Your task to perform on an android device: remove spam from my inbox in the gmail app Image 0: 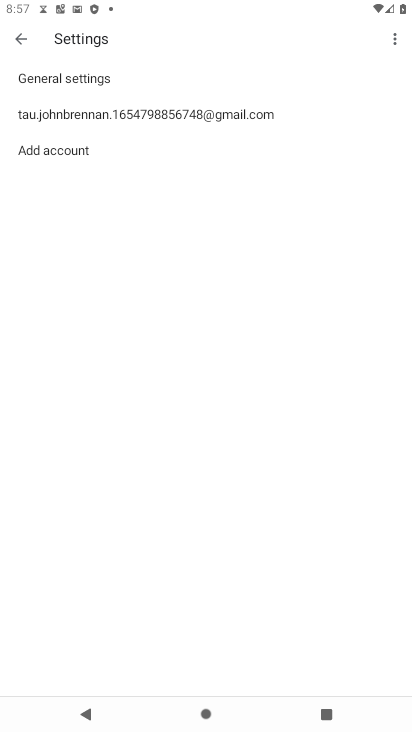
Step 0: press home button
Your task to perform on an android device: remove spam from my inbox in the gmail app Image 1: 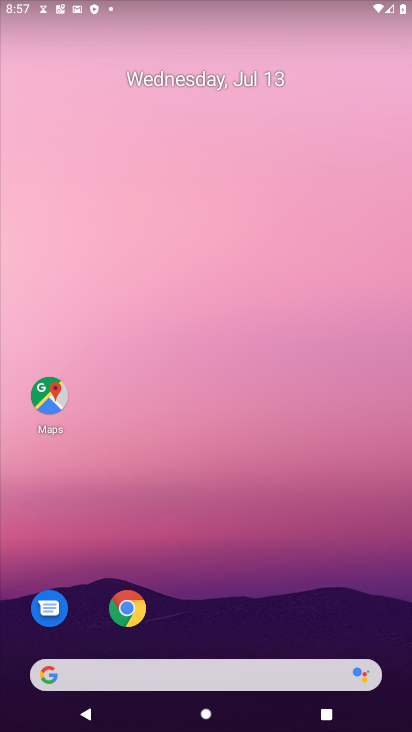
Step 1: drag from (242, 662) to (382, 21)
Your task to perform on an android device: remove spam from my inbox in the gmail app Image 2: 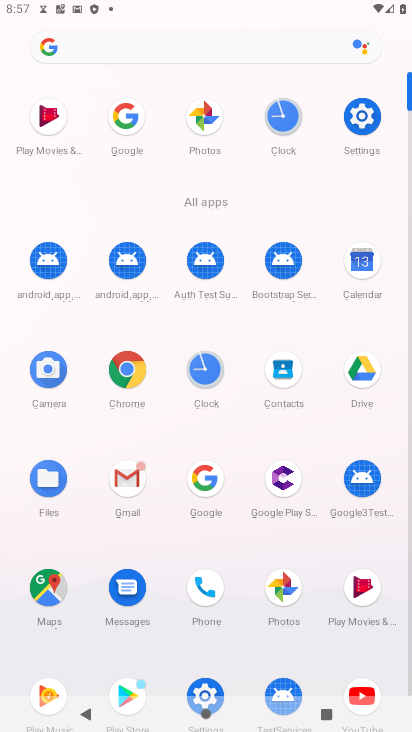
Step 2: click (129, 478)
Your task to perform on an android device: remove spam from my inbox in the gmail app Image 3: 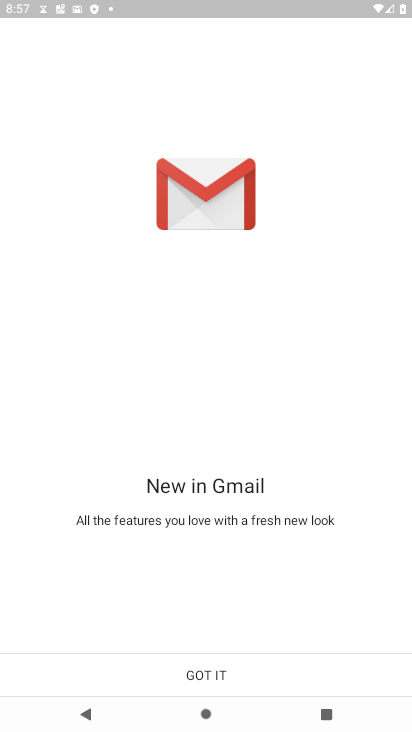
Step 3: click (199, 678)
Your task to perform on an android device: remove spam from my inbox in the gmail app Image 4: 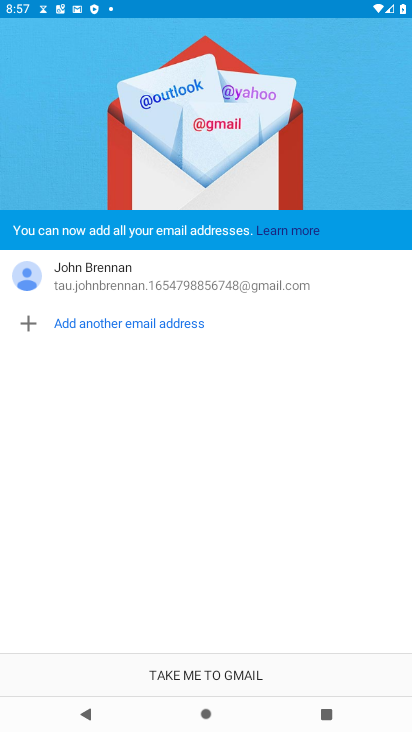
Step 4: click (199, 678)
Your task to perform on an android device: remove spam from my inbox in the gmail app Image 5: 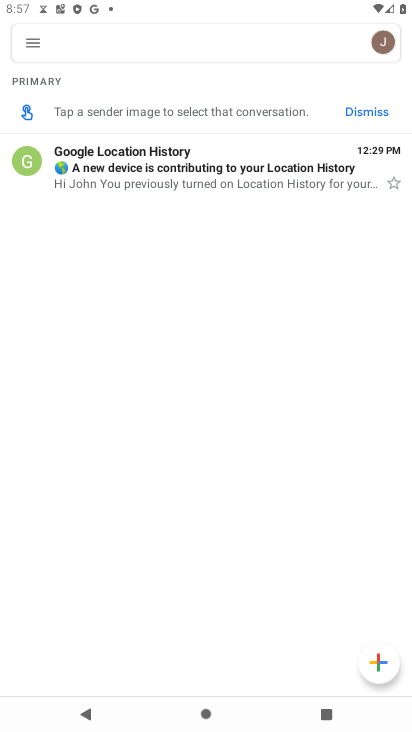
Step 5: click (37, 41)
Your task to perform on an android device: remove spam from my inbox in the gmail app Image 6: 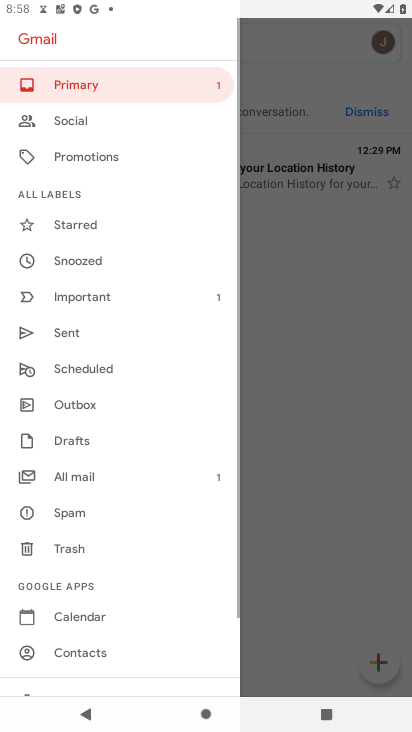
Step 6: click (67, 509)
Your task to perform on an android device: remove spam from my inbox in the gmail app Image 7: 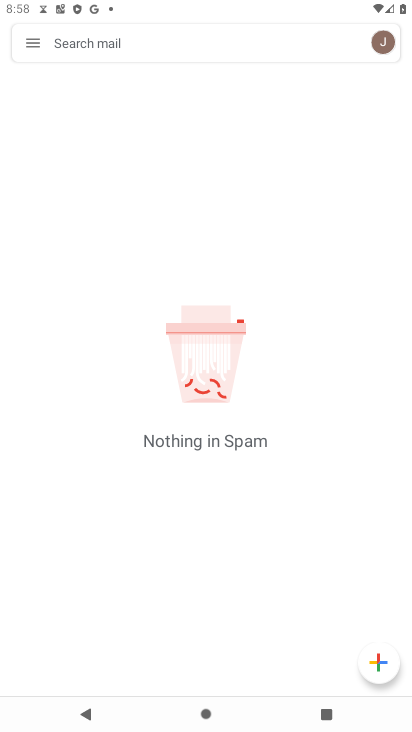
Step 7: task complete